Your task to perform on an android device: Open calendar and show me the first week of next month Image 0: 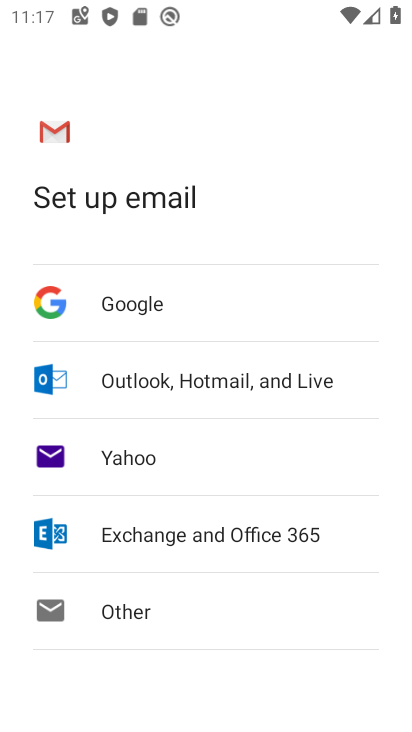
Step 0: press back button
Your task to perform on an android device: Open calendar and show me the first week of next month Image 1: 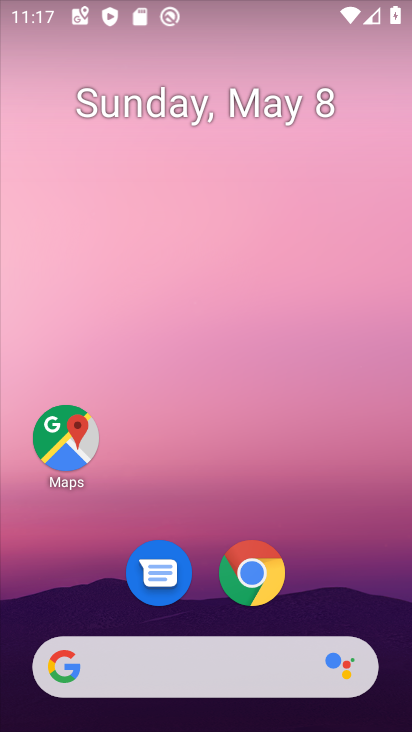
Step 1: drag from (332, 578) to (283, 14)
Your task to perform on an android device: Open calendar and show me the first week of next month Image 2: 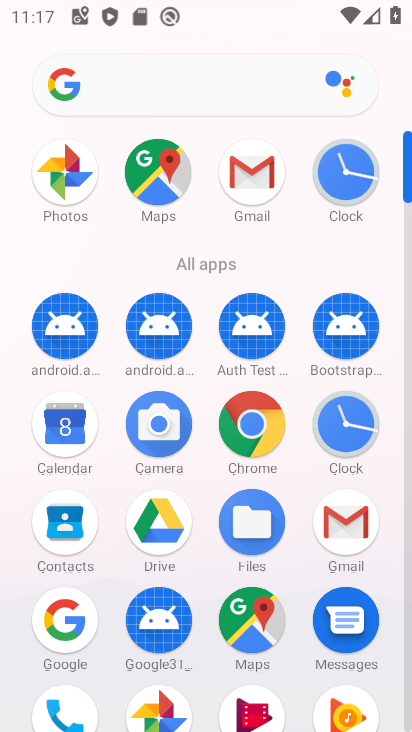
Step 2: drag from (20, 596) to (17, 275)
Your task to perform on an android device: Open calendar and show me the first week of next month Image 3: 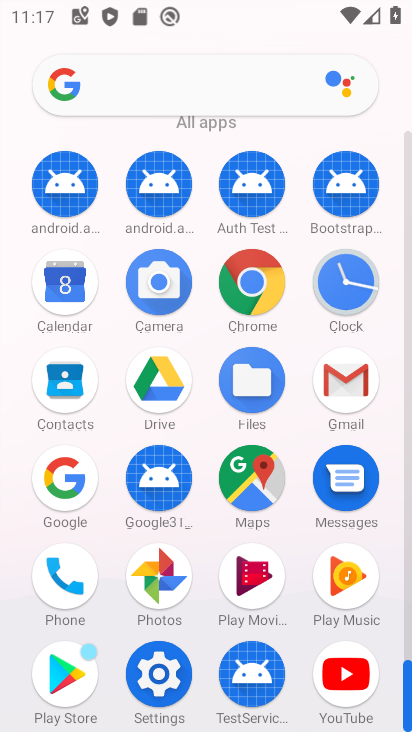
Step 3: click (64, 280)
Your task to perform on an android device: Open calendar and show me the first week of next month Image 4: 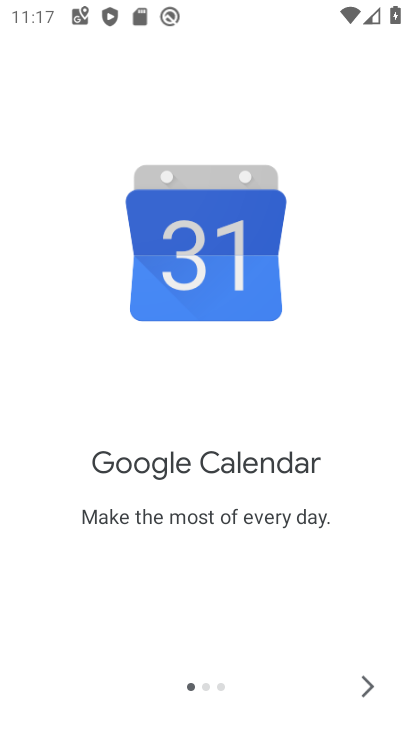
Step 4: click (360, 697)
Your task to perform on an android device: Open calendar and show me the first week of next month Image 5: 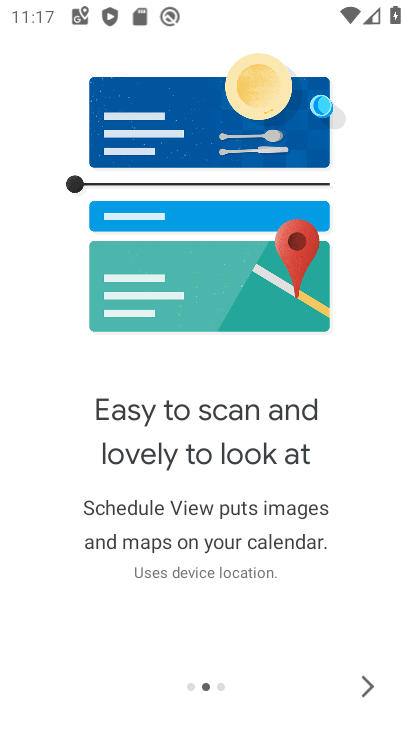
Step 5: click (358, 685)
Your task to perform on an android device: Open calendar and show me the first week of next month Image 6: 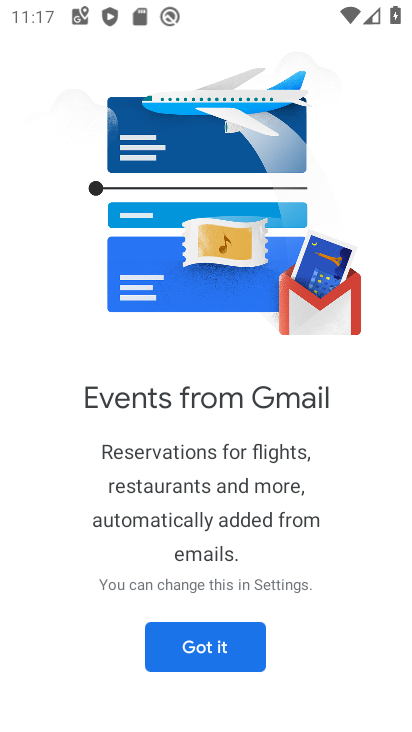
Step 6: click (244, 637)
Your task to perform on an android device: Open calendar and show me the first week of next month Image 7: 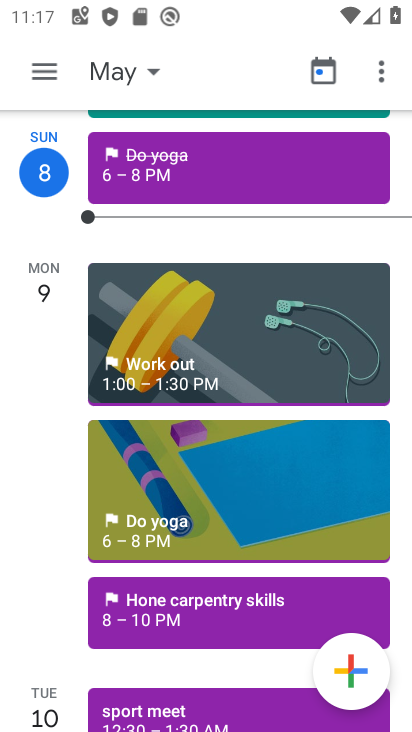
Step 7: click (115, 72)
Your task to perform on an android device: Open calendar and show me the first week of next month Image 8: 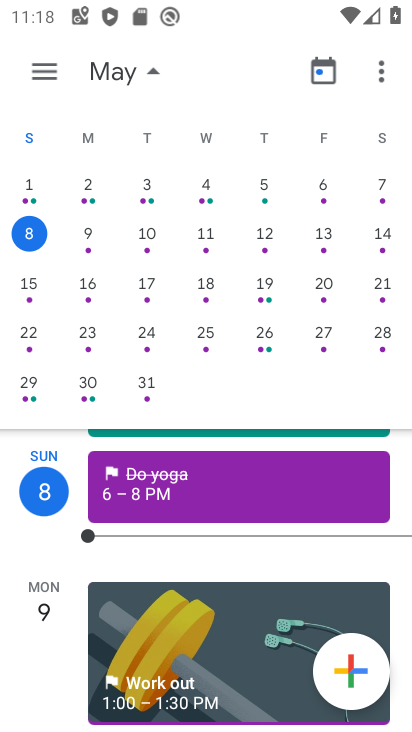
Step 8: drag from (400, 264) to (3, 170)
Your task to perform on an android device: Open calendar and show me the first week of next month Image 9: 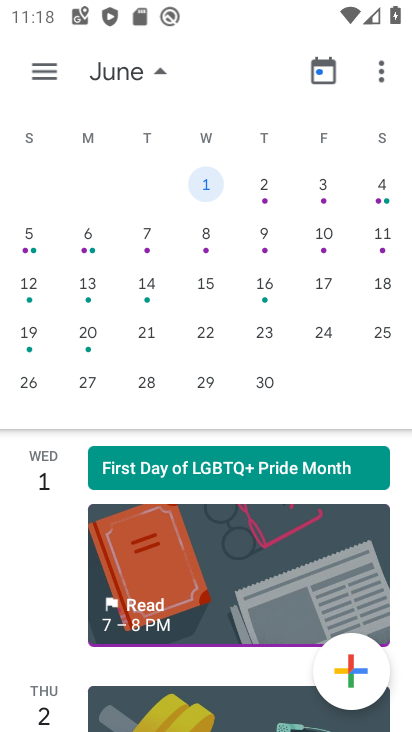
Step 9: click (206, 184)
Your task to perform on an android device: Open calendar and show me the first week of next month Image 10: 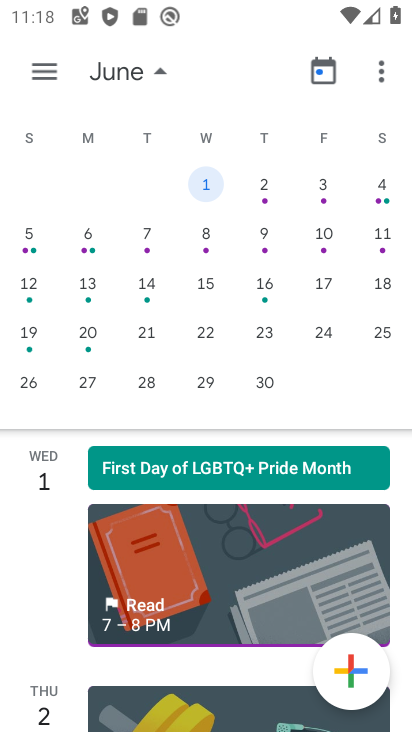
Step 10: click (43, 63)
Your task to perform on an android device: Open calendar and show me the first week of next month Image 11: 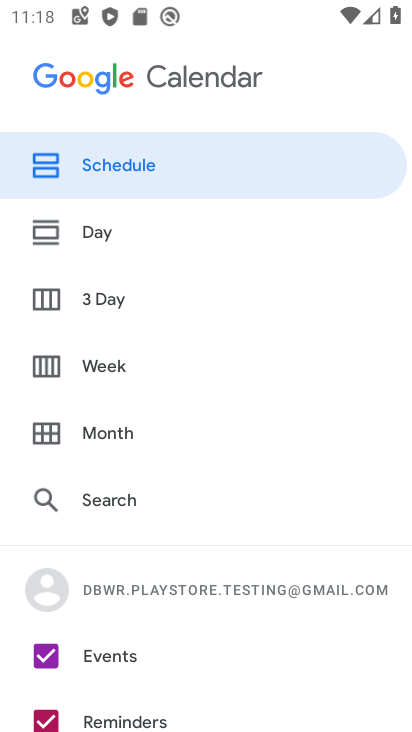
Step 11: click (98, 345)
Your task to perform on an android device: Open calendar and show me the first week of next month Image 12: 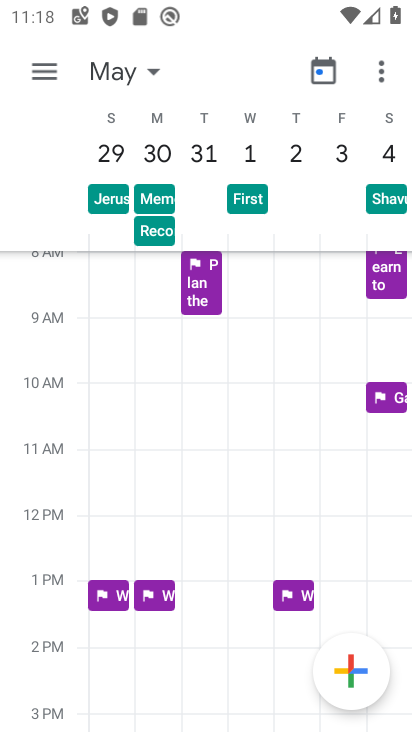
Step 12: task complete